Your task to perform on an android device: Open calendar and show me the third week of next month Image 0: 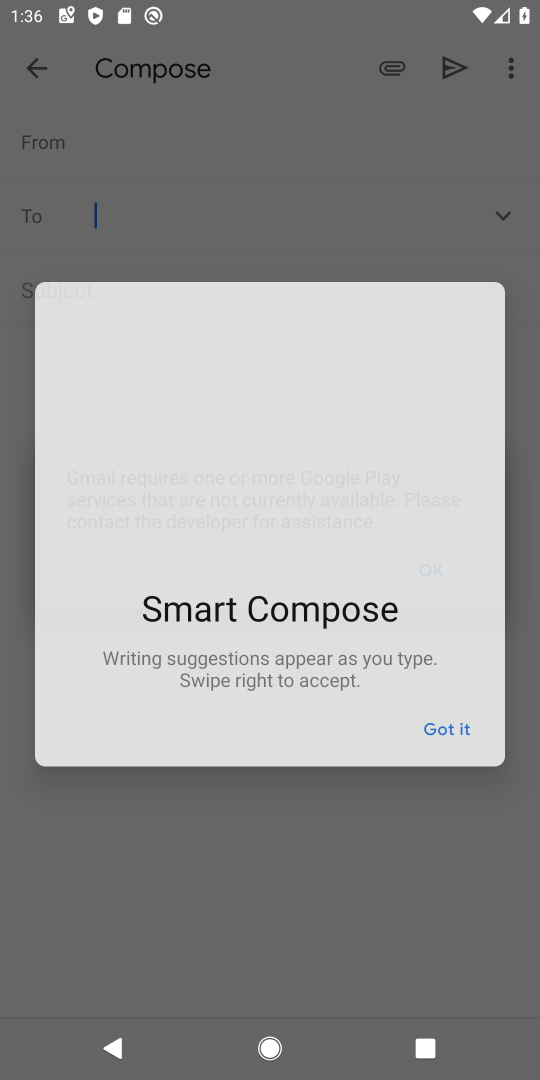
Step 0: press home button
Your task to perform on an android device: Open calendar and show me the third week of next month Image 1: 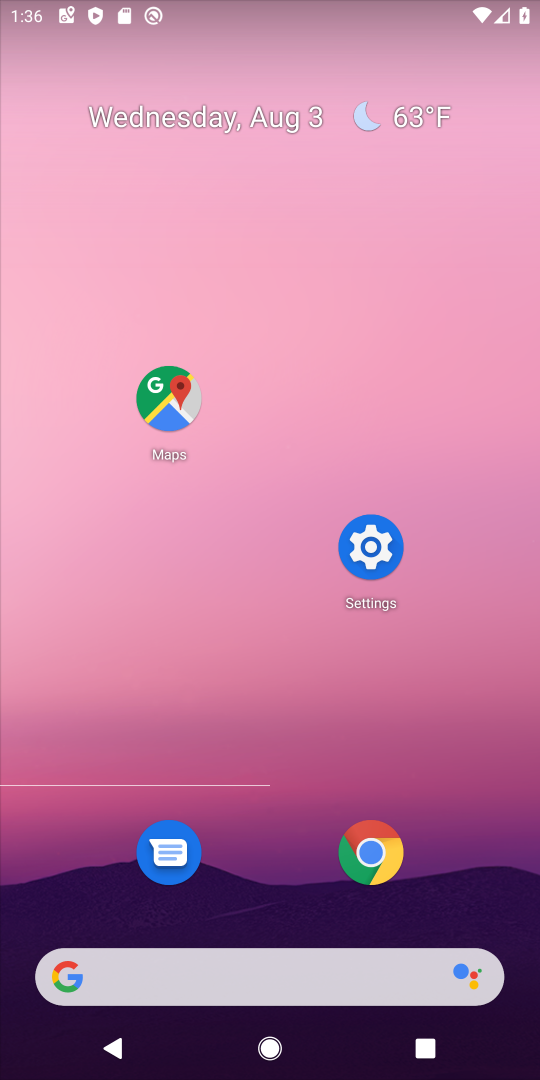
Step 1: drag from (261, 981) to (467, 278)
Your task to perform on an android device: Open calendar and show me the third week of next month Image 2: 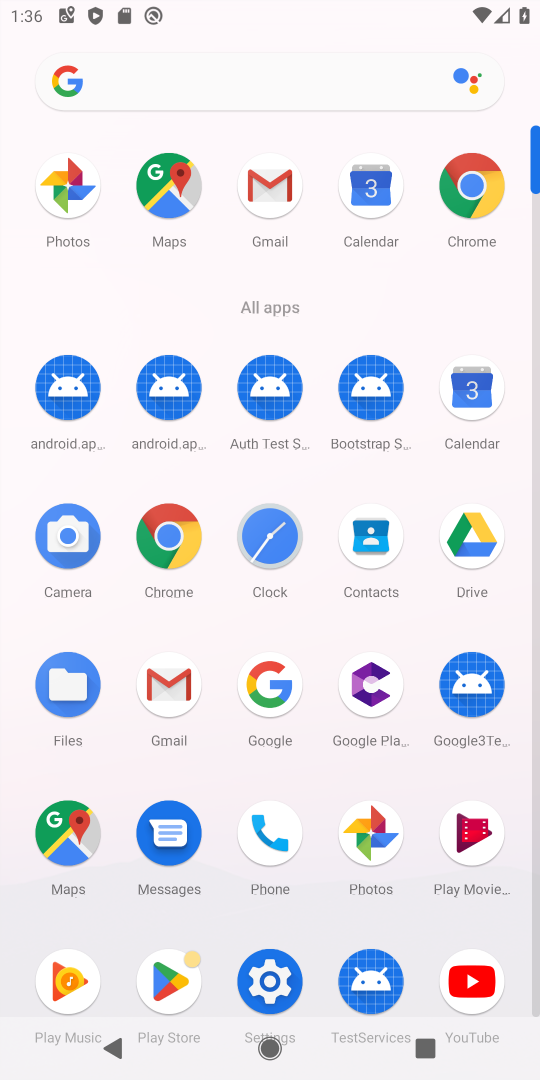
Step 2: click (470, 400)
Your task to perform on an android device: Open calendar and show me the third week of next month Image 3: 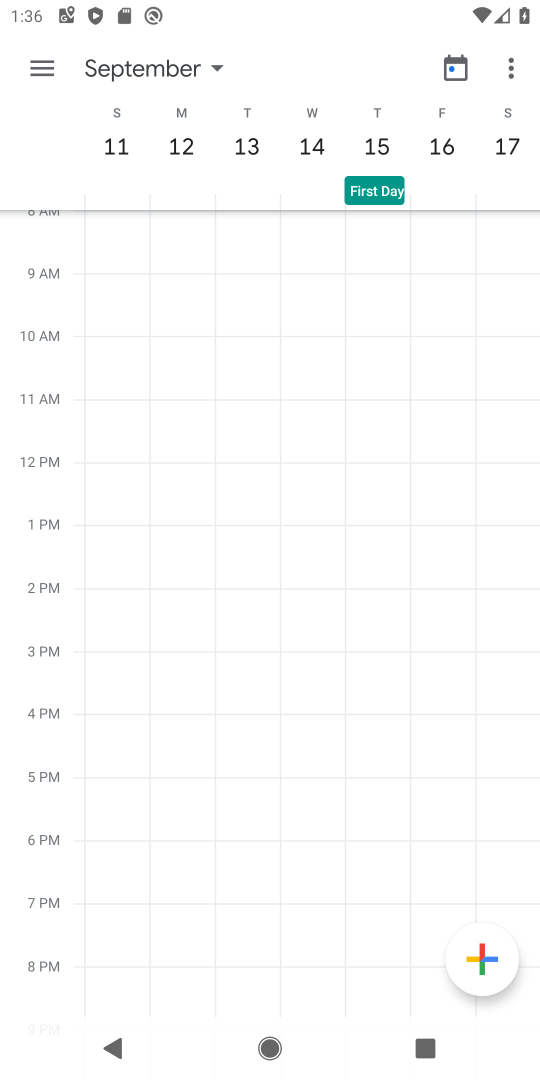
Step 3: click (163, 64)
Your task to perform on an android device: Open calendar and show me the third week of next month Image 4: 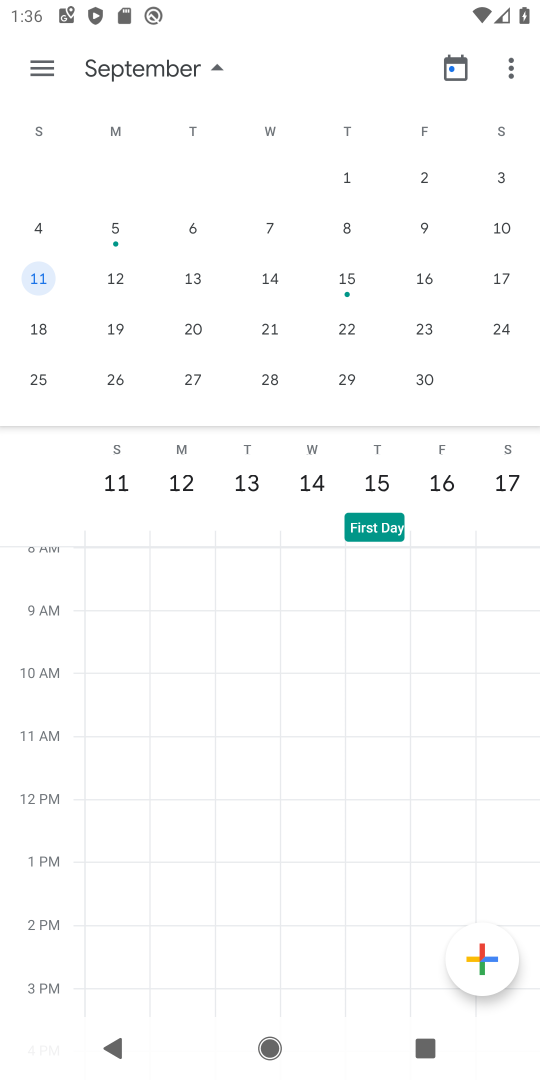
Step 4: click (38, 273)
Your task to perform on an android device: Open calendar and show me the third week of next month Image 5: 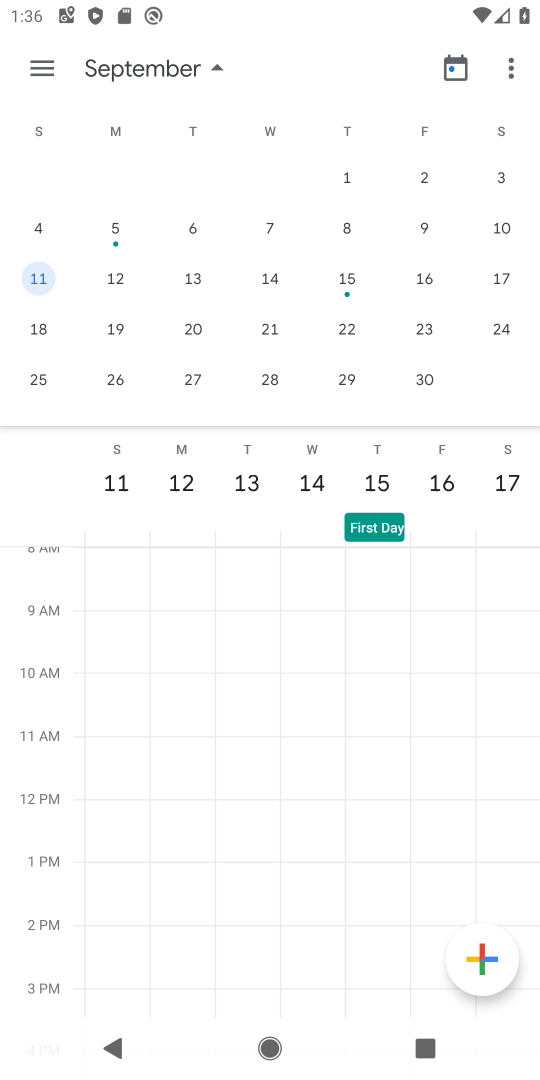
Step 5: click (38, 68)
Your task to perform on an android device: Open calendar and show me the third week of next month Image 6: 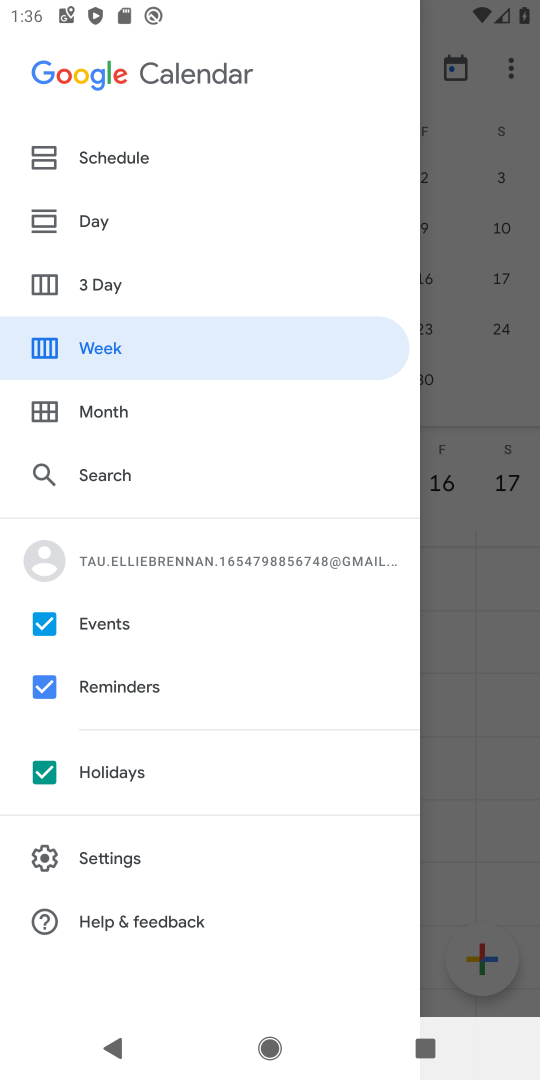
Step 6: click (141, 340)
Your task to perform on an android device: Open calendar and show me the third week of next month Image 7: 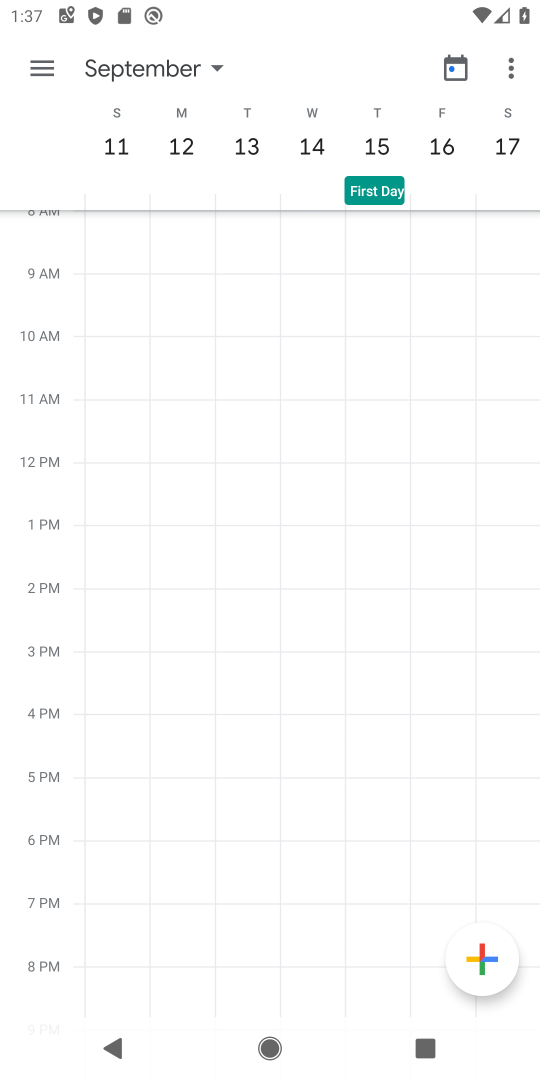
Step 7: task complete